Your task to perform on an android device: Open Google Image 0: 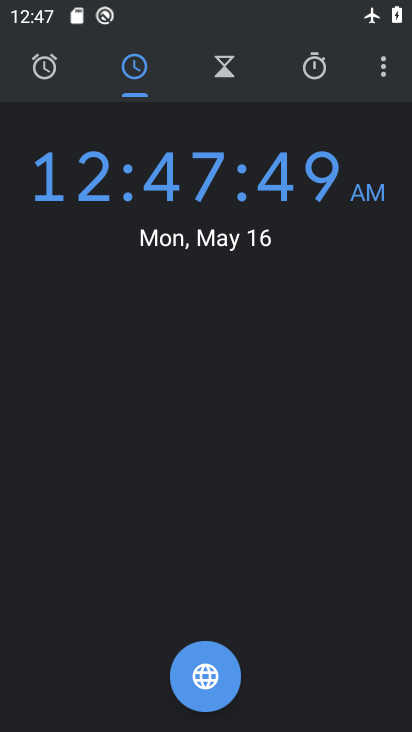
Step 0: press home button
Your task to perform on an android device: Open Google Image 1: 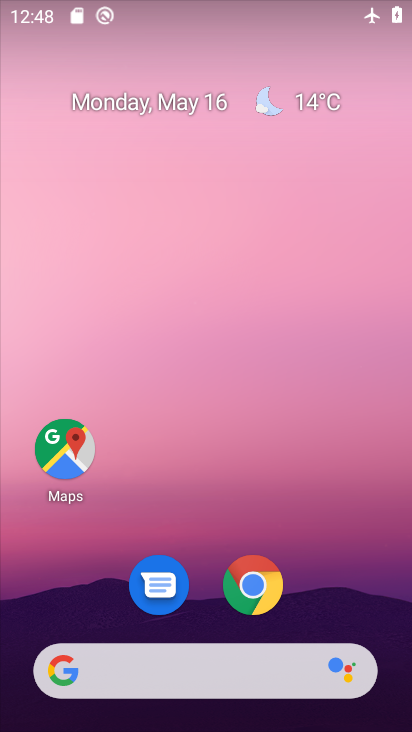
Step 1: click (141, 669)
Your task to perform on an android device: Open Google Image 2: 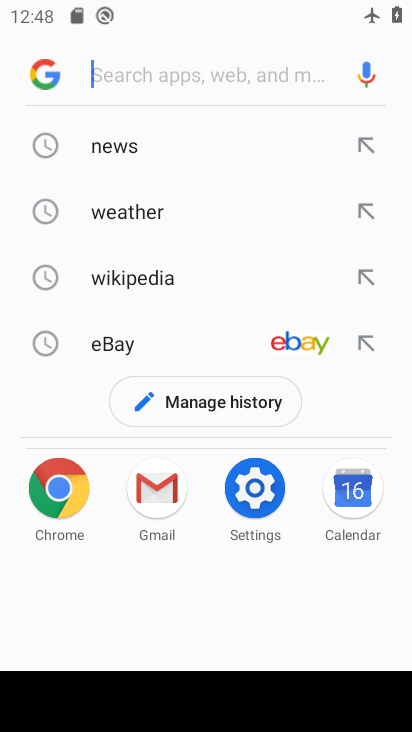
Step 2: click (46, 73)
Your task to perform on an android device: Open Google Image 3: 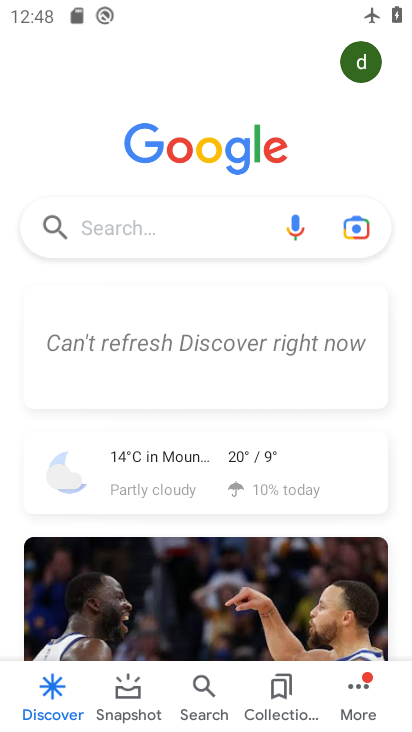
Step 3: task complete